Your task to perform on an android device: set default search engine in the chrome app Image 0: 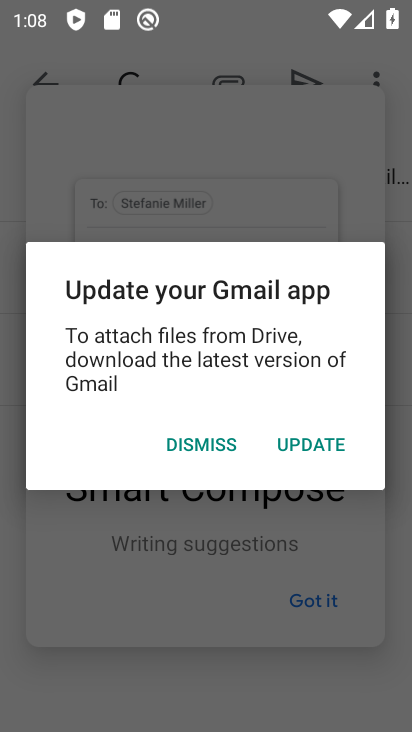
Step 0: press home button
Your task to perform on an android device: set default search engine in the chrome app Image 1: 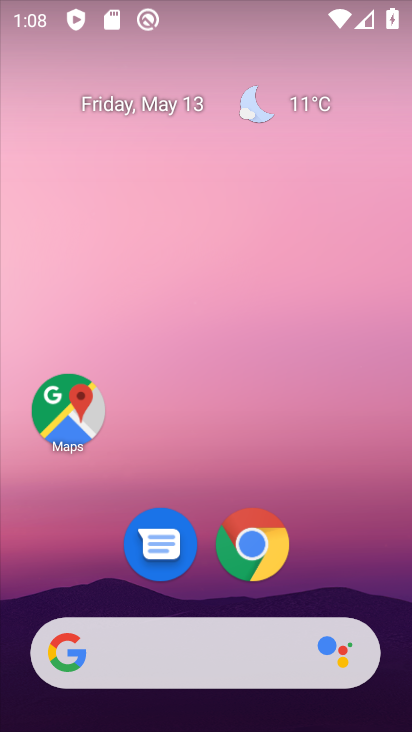
Step 1: click (248, 549)
Your task to perform on an android device: set default search engine in the chrome app Image 2: 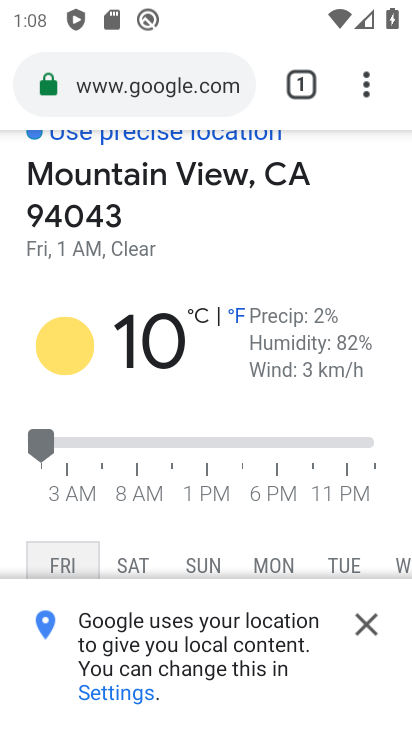
Step 2: click (367, 80)
Your task to perform on an android device: set default search engine in the chrome app Image 3: 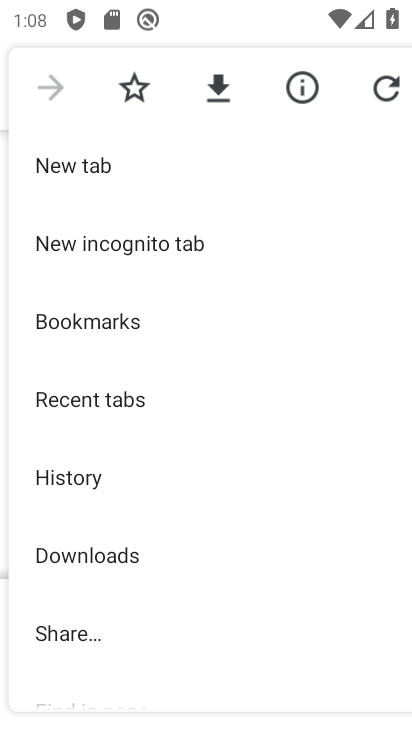
Step 3: drag from (88, 606) to (106, 288)
Your task to perform on an android device: set default search engine in the chrome app Image 4: 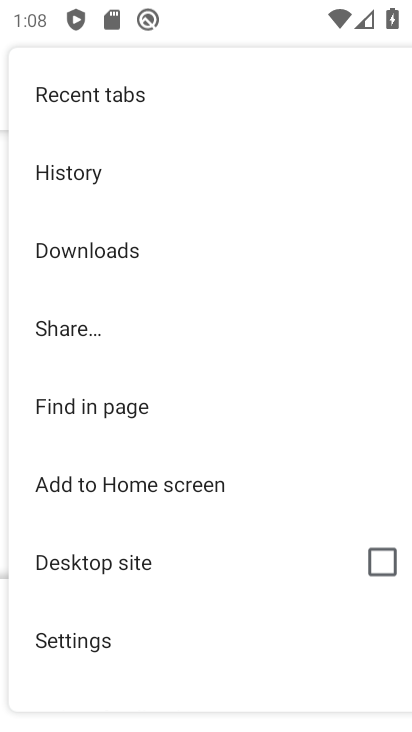
Step 4: click (90, 632)
Your task to perform on an android device: set default search engine in the chrome app Image 5: 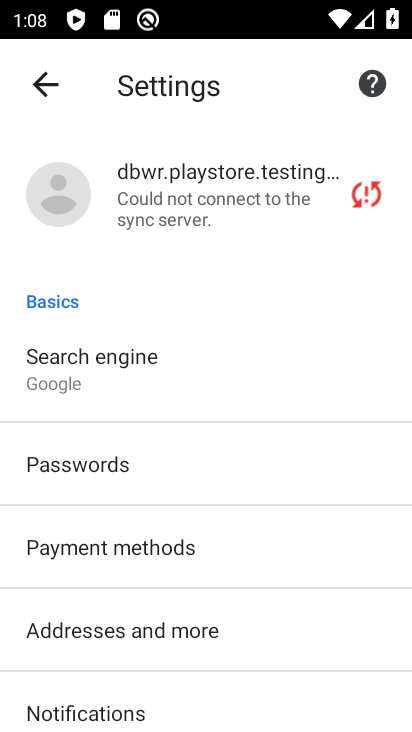
Step 5: click (101, 370)
Your task to perform on an android device: set default search engine in the chrome app Image 6: 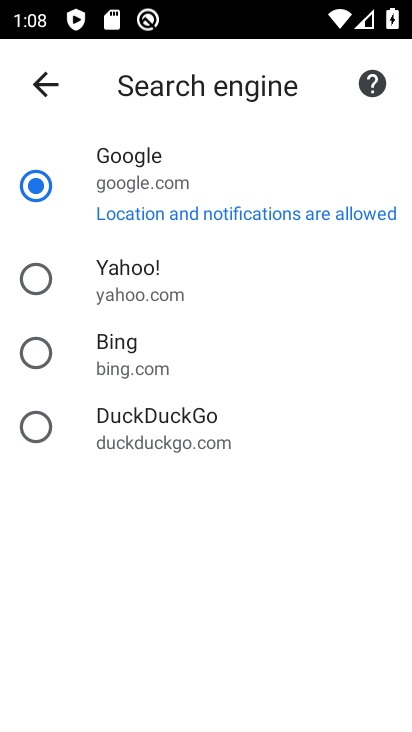
Step 6: task complete